Your task to perform on an android device: turn on notifications settings in the gmail app Image 0: 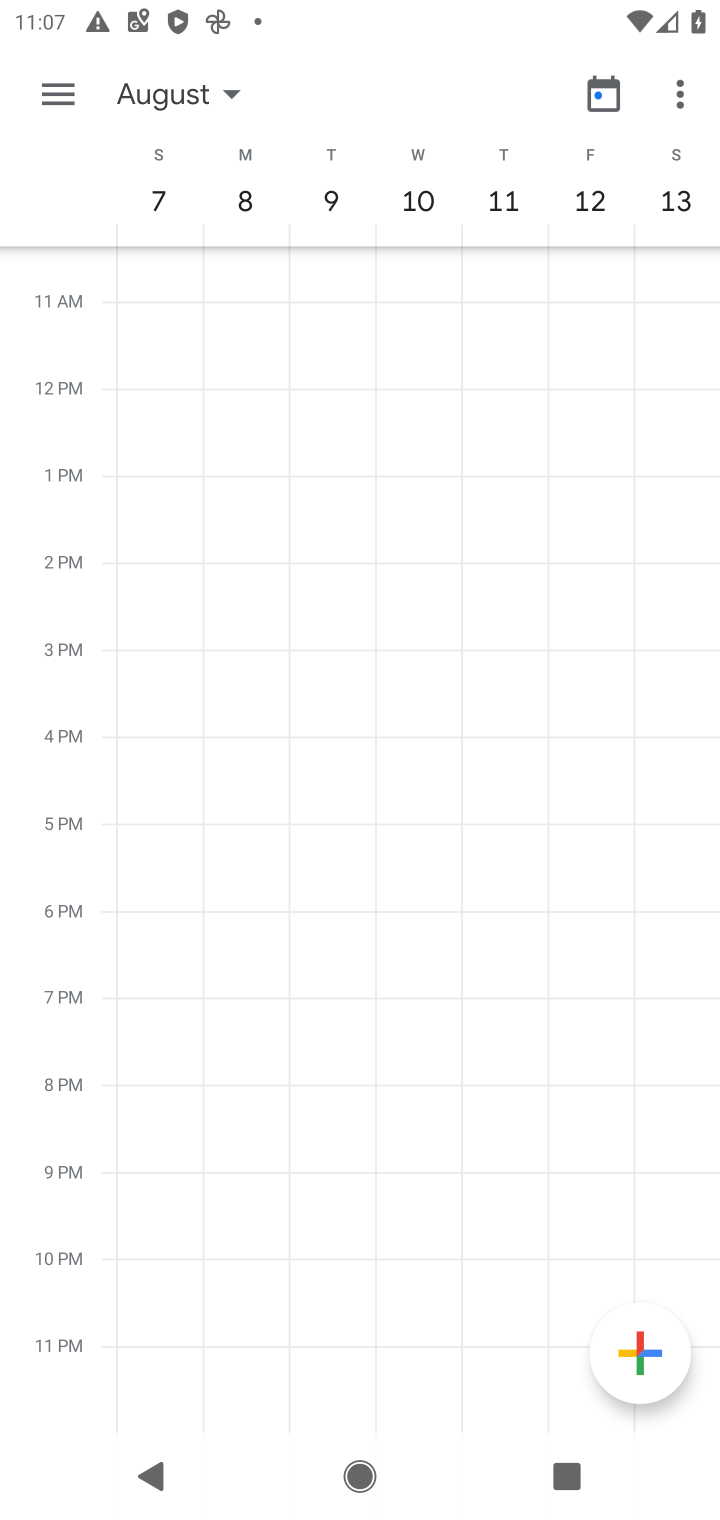
Step 0: press home button
Your task to perform on an android device: turn on notifications settings in the gmail app Image 1: 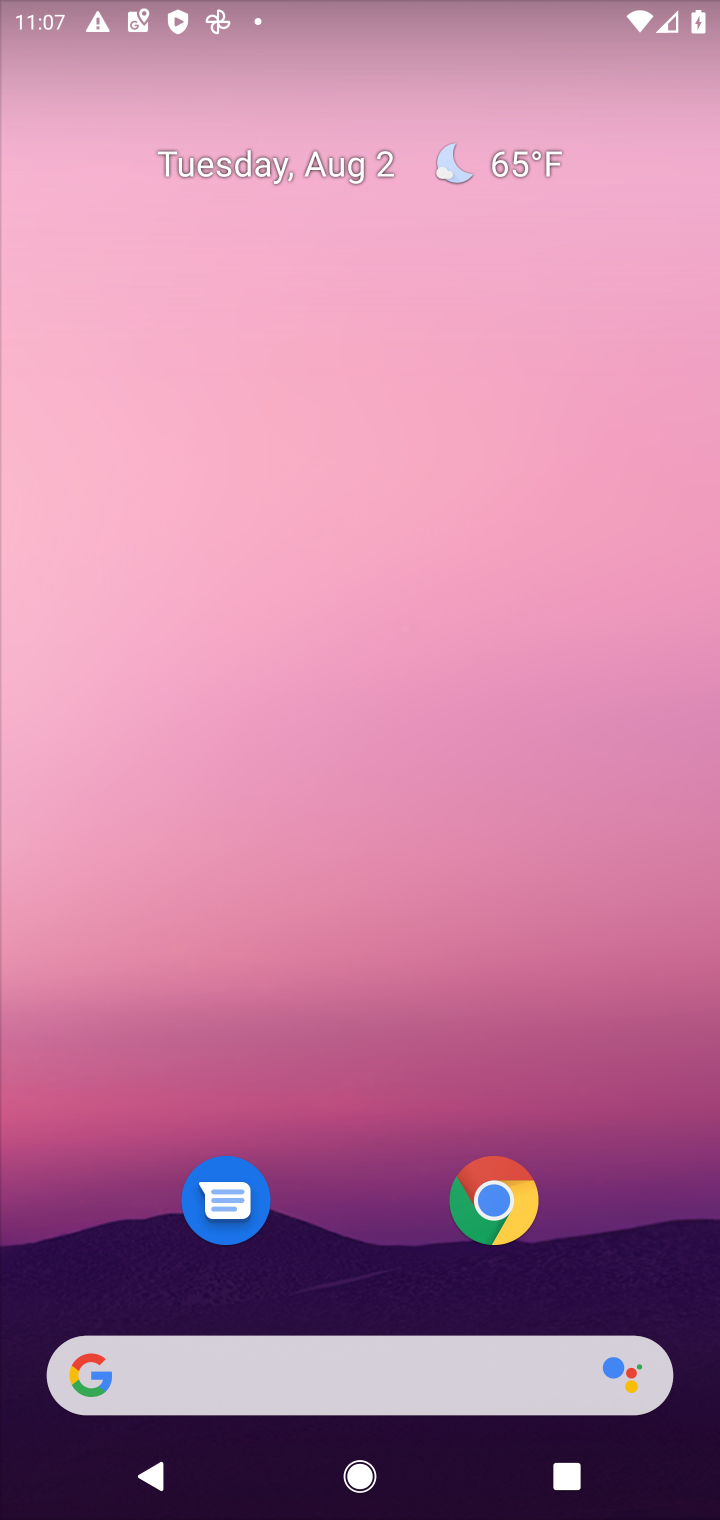
Step 1: drag from (640, 1076) to (550, 382)
Your task to perform on an android device: turn on notifications settings in the gmail app Image 2: 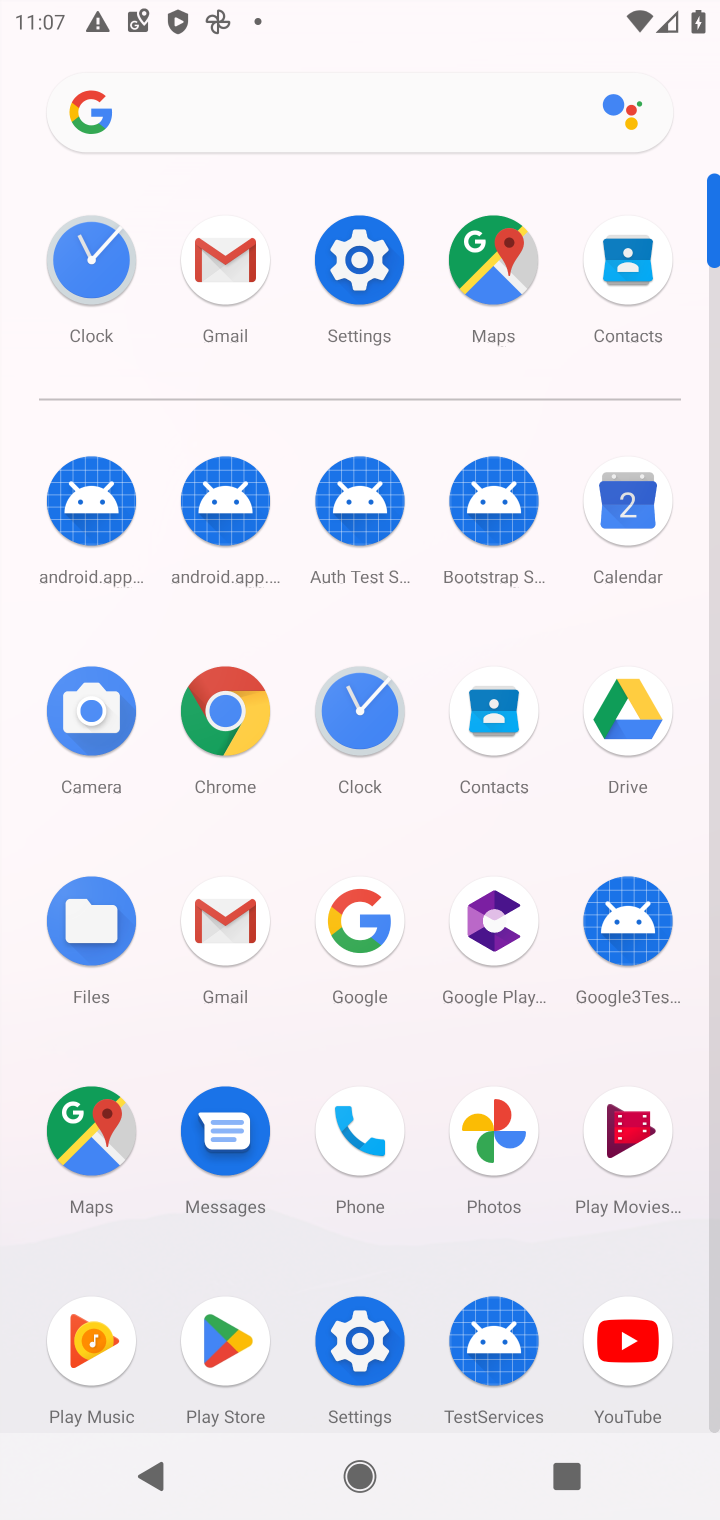
Step 2: click (224, 915)
Your task to perform on an android device: turn on notifications settings in the gmail app Image 3: 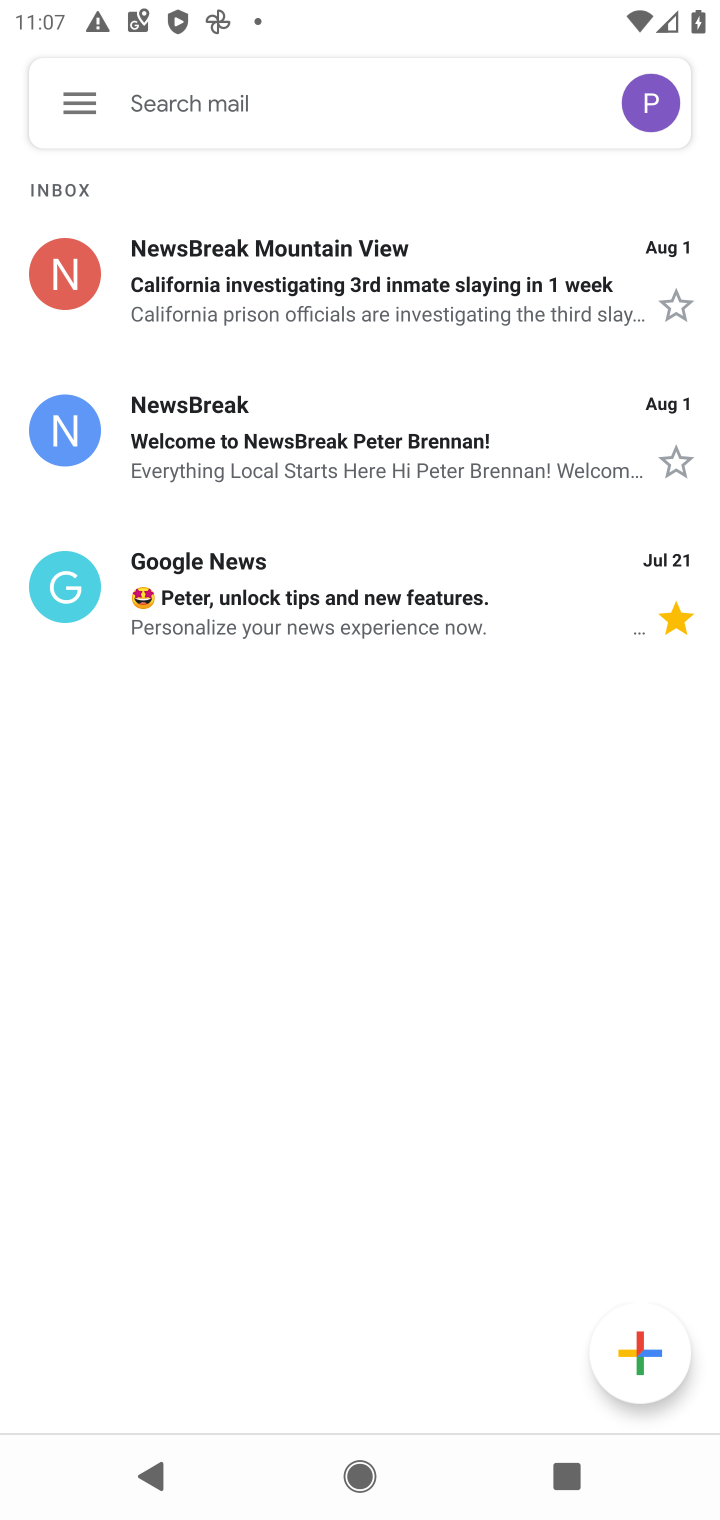
Step 3: click (78, 115)
Your task to perform on an android device: turn on notifications settings in the gmail app Image 4: 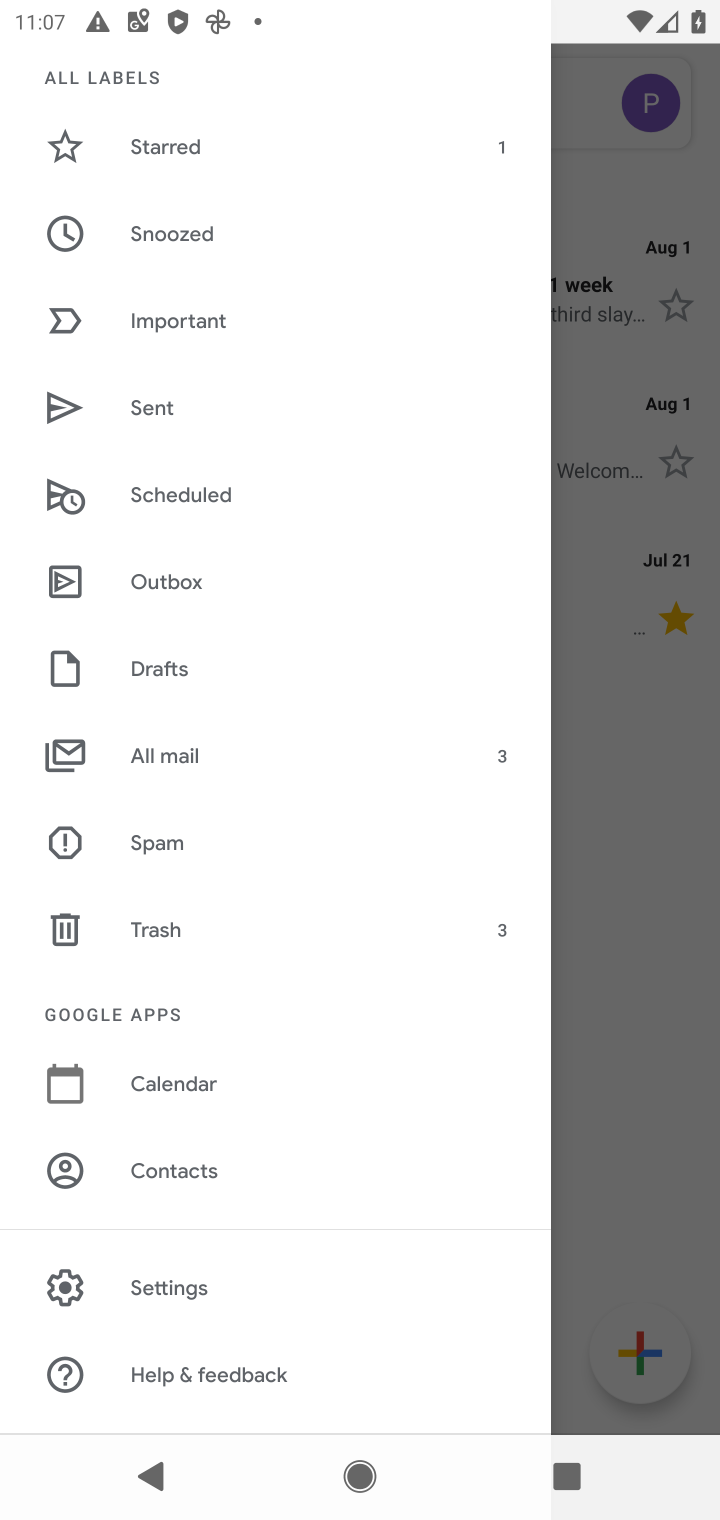
Step 4: click (184, 1274)
Your task to perform on an android device: turn on notifications settings in the gmail app Image 5: 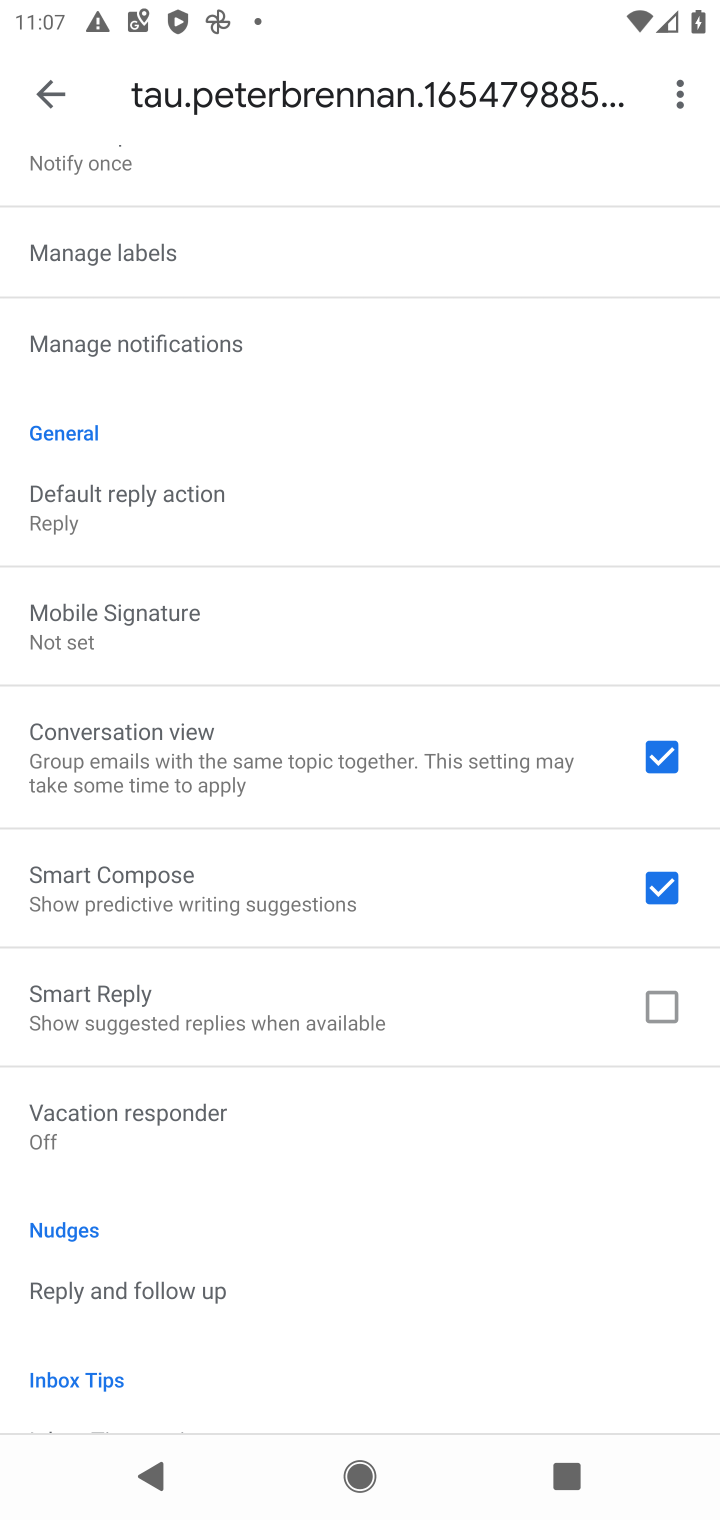
Step 5: click (159, 332)
Your task to perform on an android device: turn on notifications settings in the gmail app Image 6: 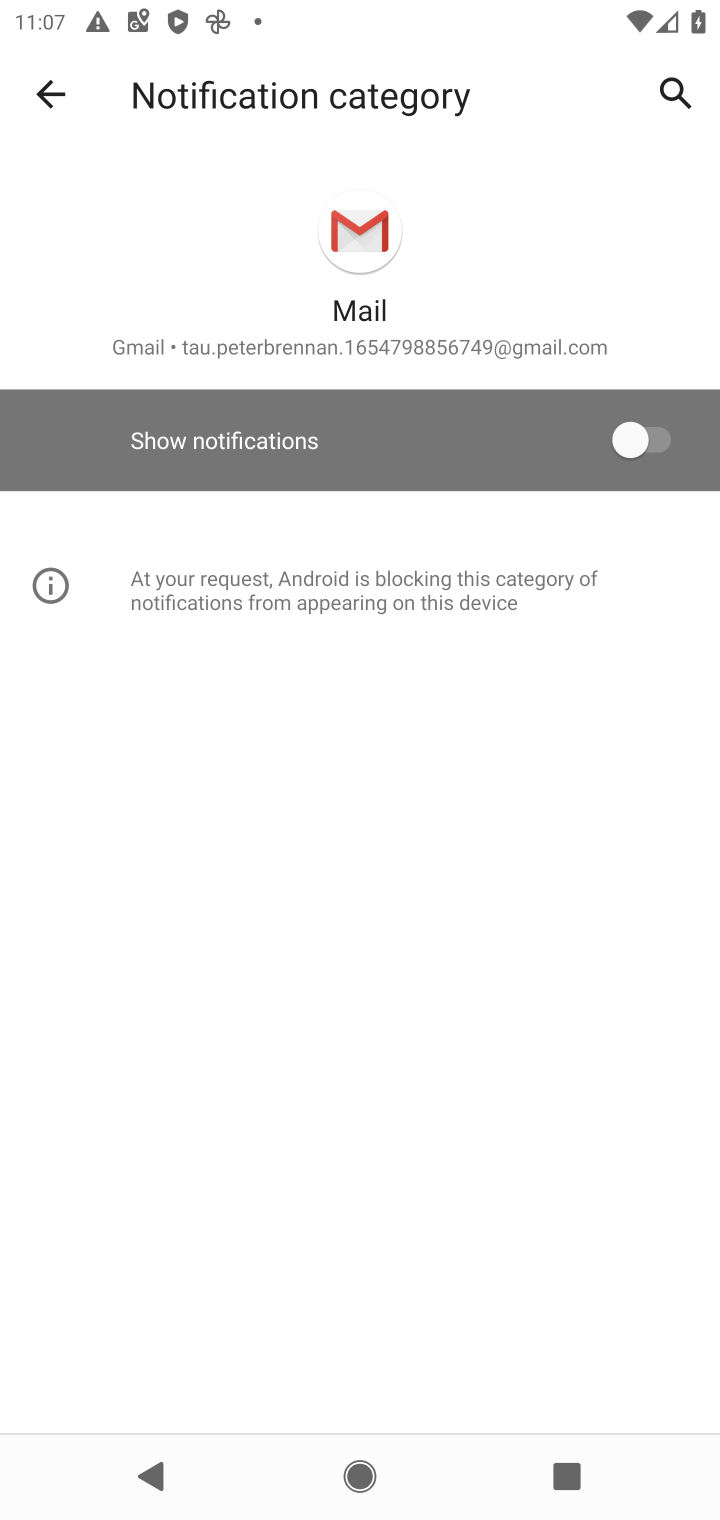
Step 6: click (655, 444)
Your task to perform on an android device: turn on notifications settings in the gmail app Image 7: 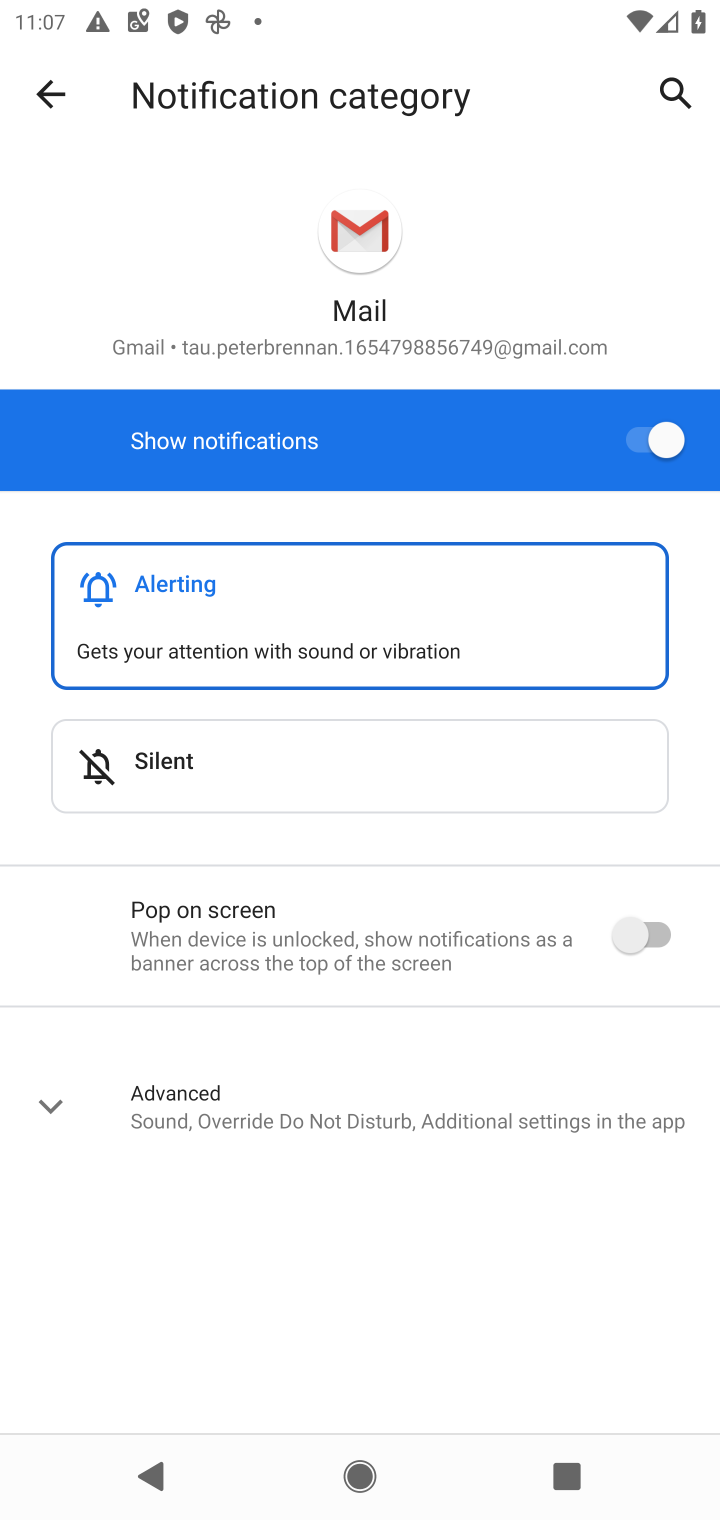
Step 7: task complete